Your task to perform on an android device: set default search engine in the chrome app Image 0: 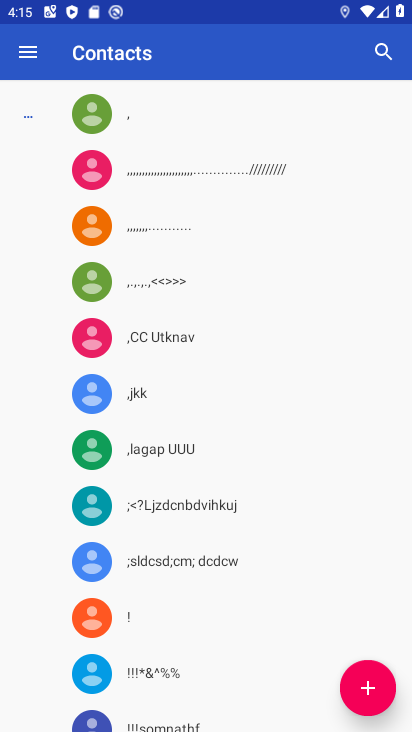
Step 0: press home button
Your task to perform on an android device: set default search engine in the chrome app Image 1: 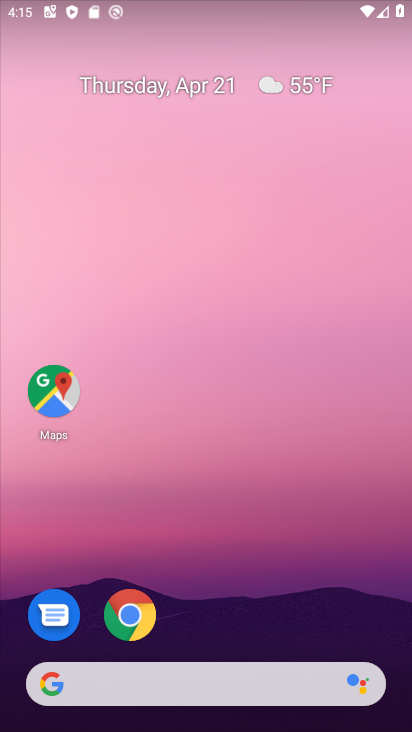
Step 1: click (145, 600)
Your task to perform on an android device: set default search engine in the chrome app Image 2: 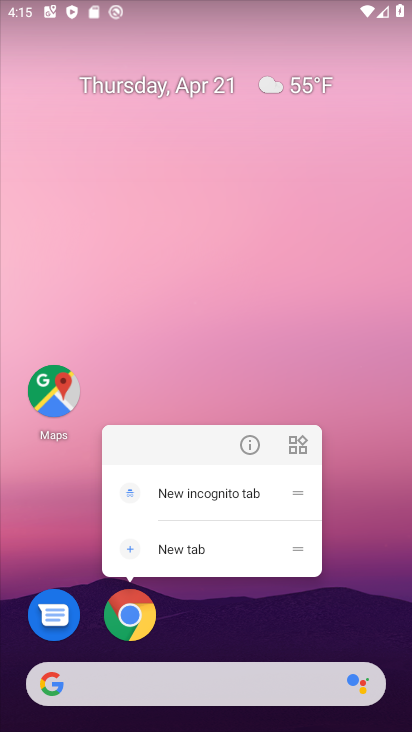
Step 2: click (135, 610)
Your task to perform on an android device: set default search engine in the chrome app Image 3: 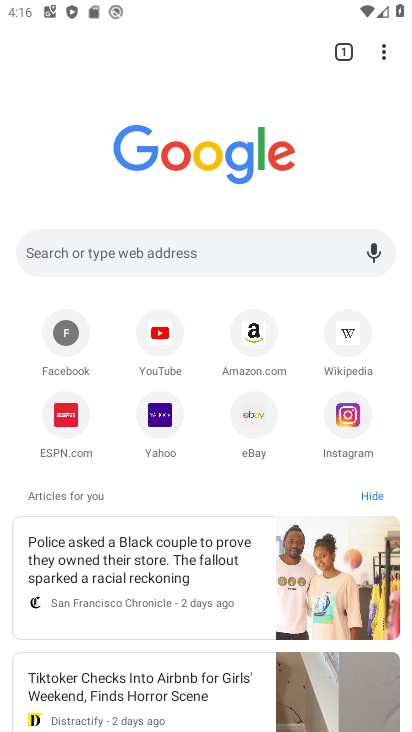
Step 3: click (379, 53)
Your task to perform on an android device: set default search engine in the chrome app Image 4: 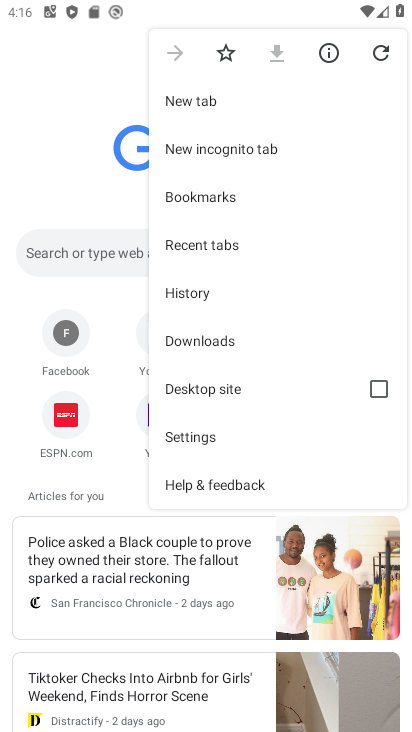
Step 4: click (240, 435)
Your task to perform on an android device: set default search engine in the chrome app Image 5: 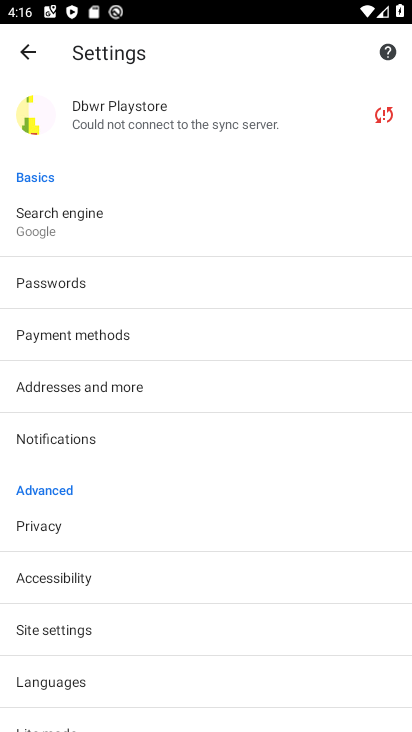
Step 5: click (78, 228)
Your task to perform on an android device: set default search engine in the chrome app Image 6: 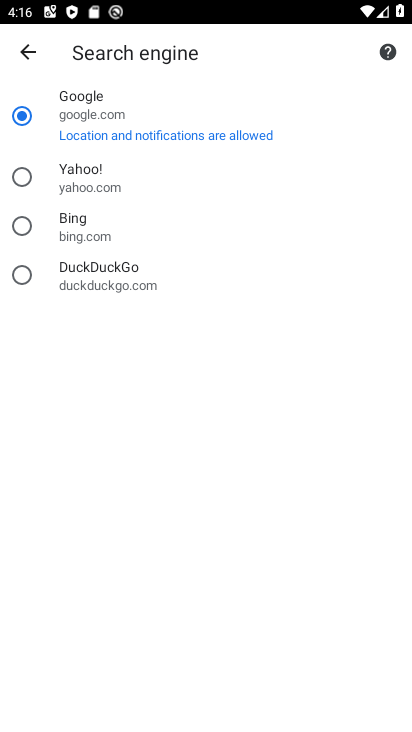
Step 6: click (78, 229)
Your task to perform on an android device: set default search engine in the chrome app Image 7: 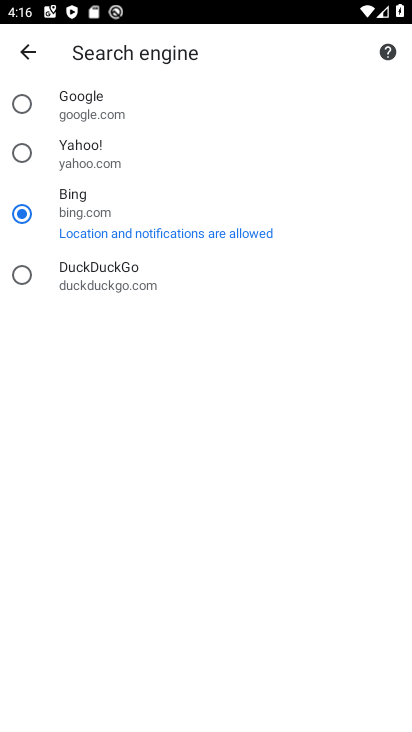
Step 7: task complete